Your task to perform on an android device: Open the calendar and show me this week's events? Image 0: 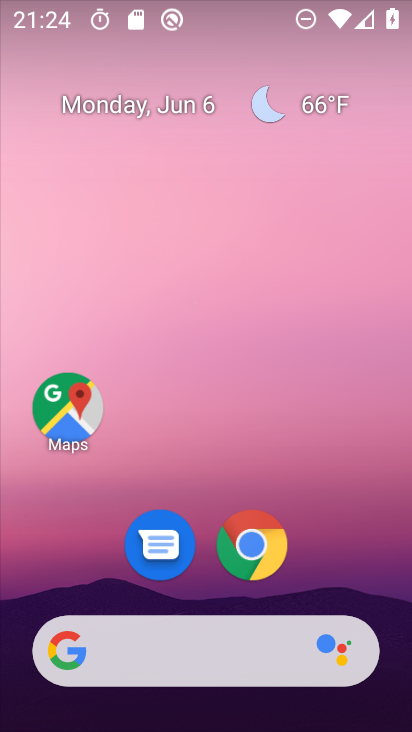
Step 0: drag from (200, 598) to (295, 25)
Your task to perform on an android device: Open the calendar and show me this week's events? Image 1: 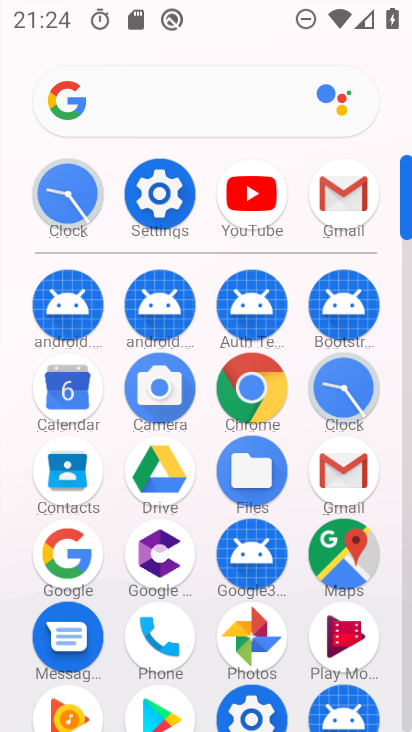
Step 1: click (71, 398)
Your task to perform on an android device: Open the calendar and show me this week's events? Image 2: 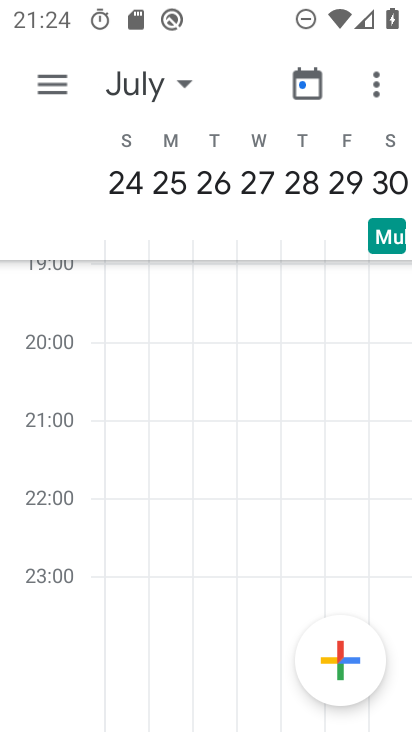
Step 2: click (151, 89)
Your task to perform on an android device: Open the calendar and show me this week's events? Image 3: 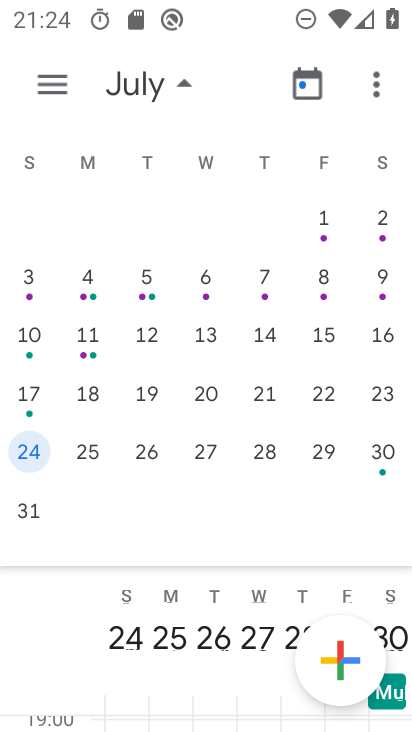
Step 3: drag from (46, 357) to (399, 375)
Your task to perform on an android device: Open the calendar and show me this week's events? Image 4: 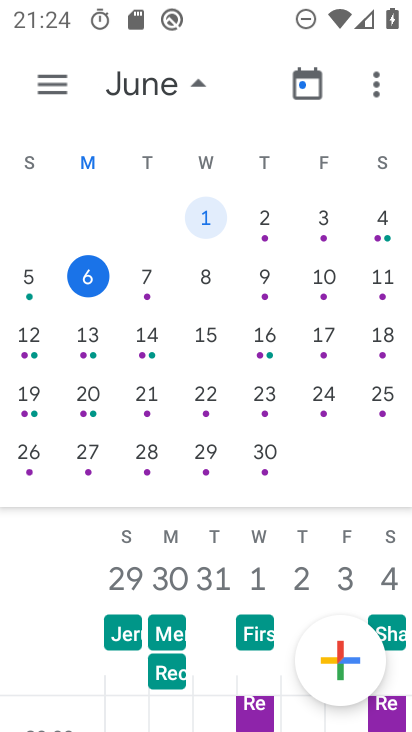
Step 4: click (89, 285)
Your task to perform on an android device: Open the calendar and show me this week's events? Image 5: 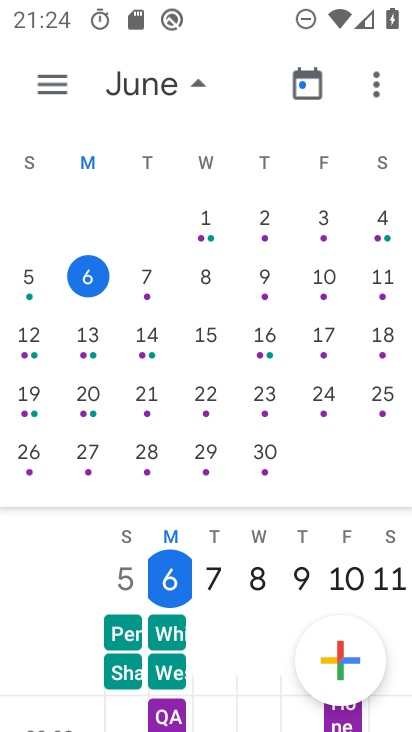
Step 5: click (40, 74)
Your task to perform on an android device: Open the calendar and show me this week's events? Image 6: 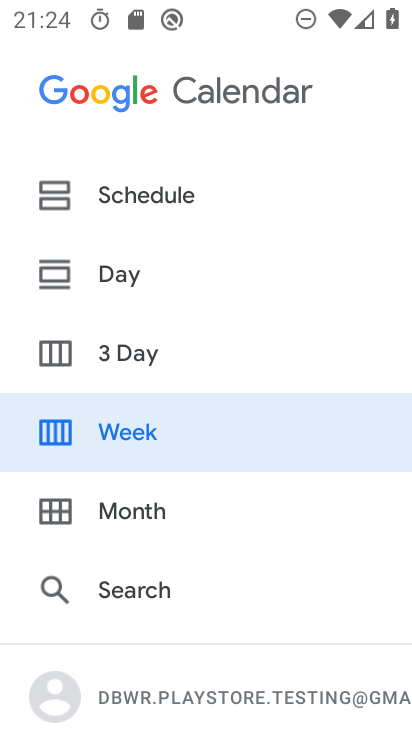
Step 6: click (147, 431)
Your task to perform on an android device: Open the calendar and show me this week's events? Image 7: 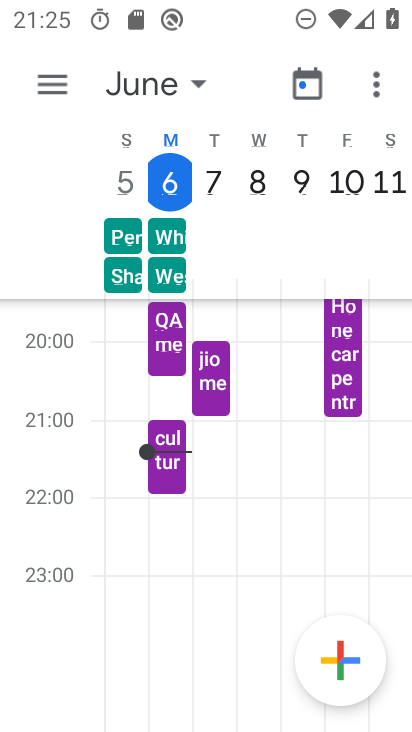
Step 7: click (55, 87)
Your task to perform on an android device: Open the calendar and show me this week's events? Image 8: 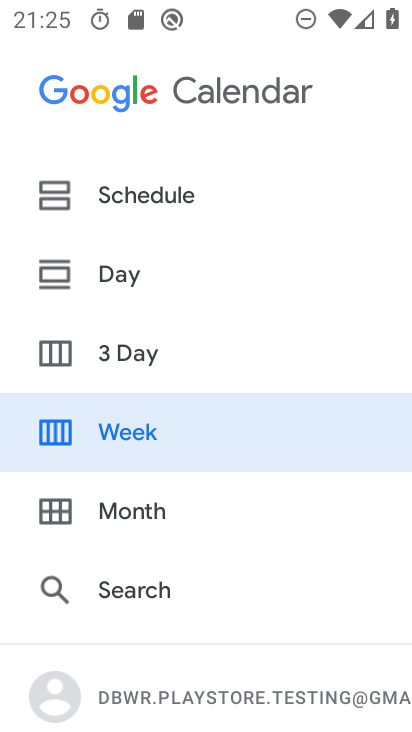
Step 8: drag from (156, 658) to (205, 235)
Your task to perform on an android device: Open the calendar and show me this week's events? Image 9: 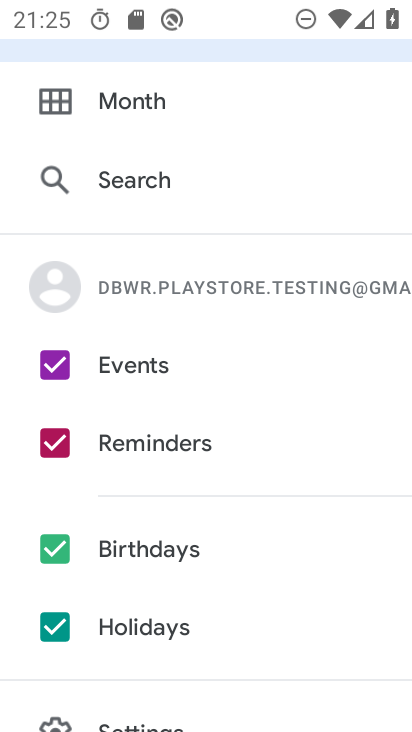
Step 9: click (135, 448)
Your task to perform on an android device: Open the calendar and show me this week's events? Image 10: 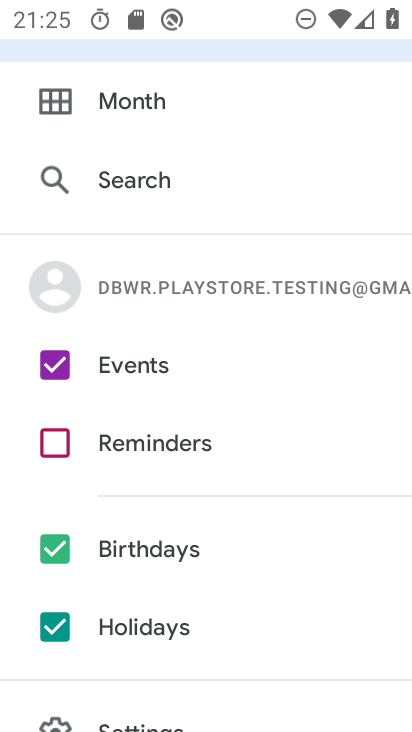
Step 10: click (109, 548)
Your task to perform on an android device: Open the calendar and show me this week's events? Image 11: 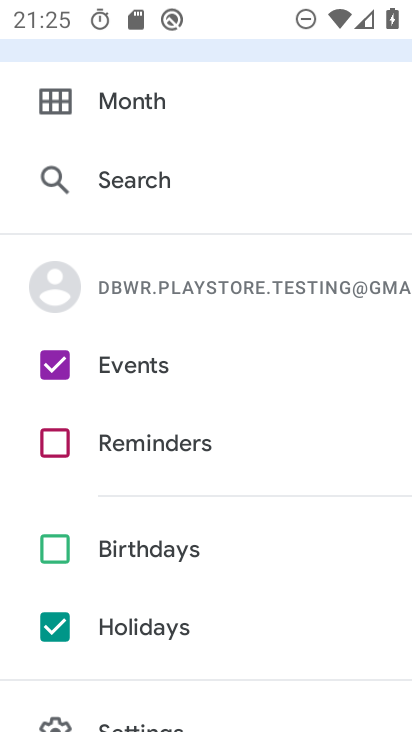
Step 11: click (100, 624)
Your task to perform on an android device: Open the calendar and show me this week's events? Image 12: 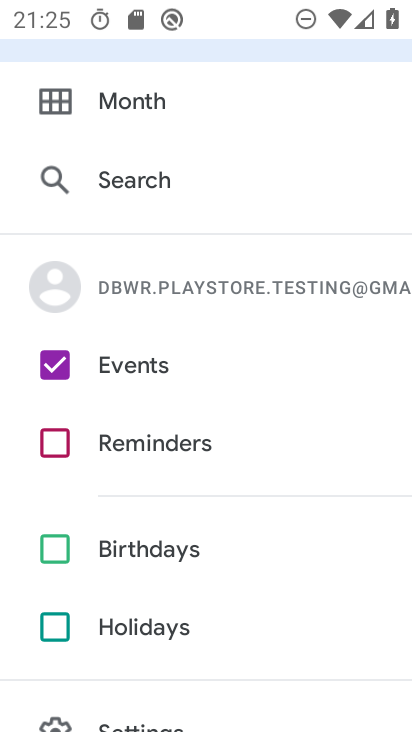
Step 12: click (156, 53)
Your task to perform on an android device: Open the calendar and show me this week's events? Image 13: 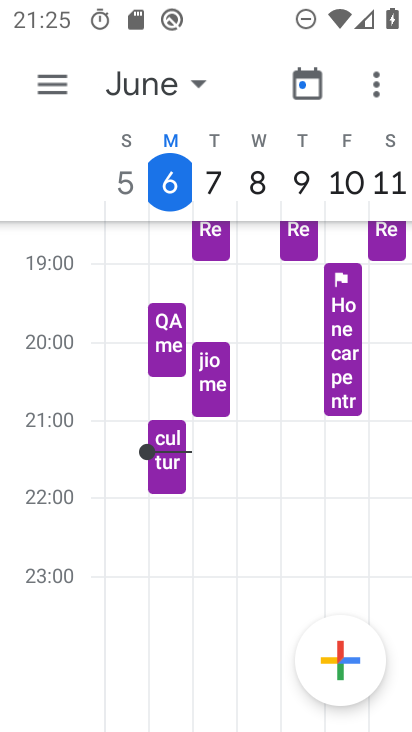
Step 13: task complete